Your task to perform on an android device: turn notification dots on Image 0: 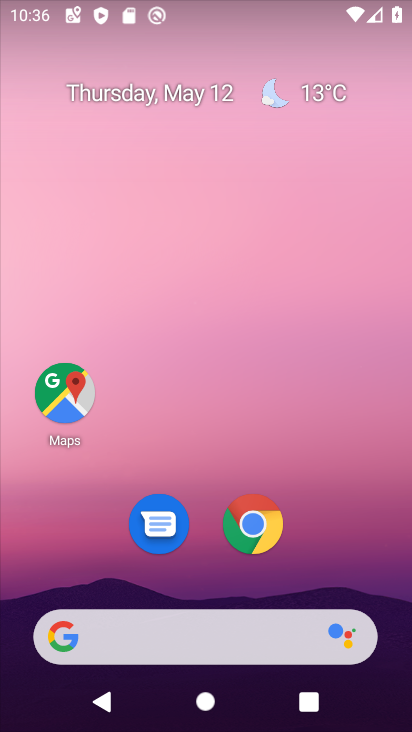
Step 0: drag from (294, 476) to (285, 40)
Your task to perform on an android device: turn notification dots on Image 1: 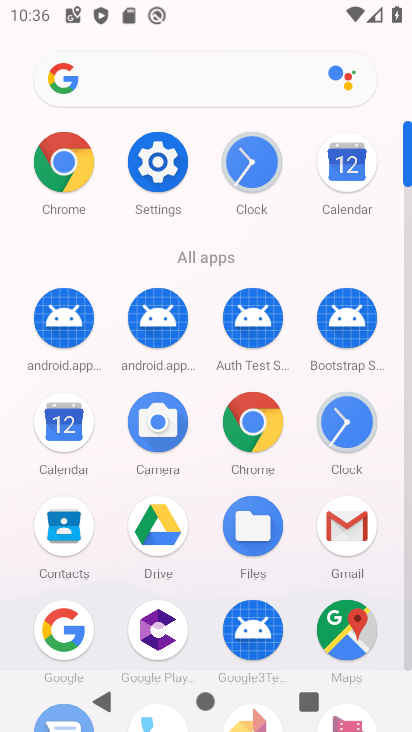
Step 1: click (173, 146)
Your task to perform on an android device: turn notification dots on Image 2: 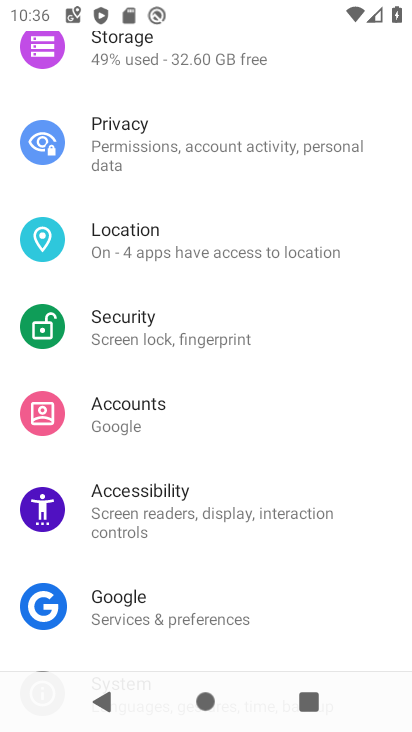
Step 2: drag from (236, 208) to (233, 584)
Your task to perform on an android device: turn notification dots on Image 3: 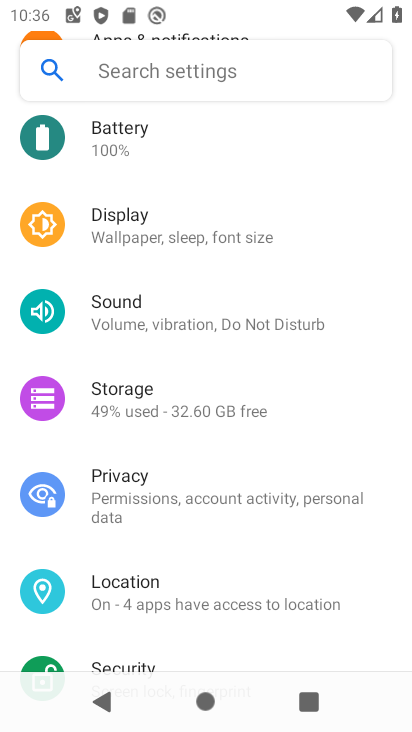
Step 3: drag from (219, 193) to (242, 634)
Your task to perform on an android device: turn notification dots on Image 4: 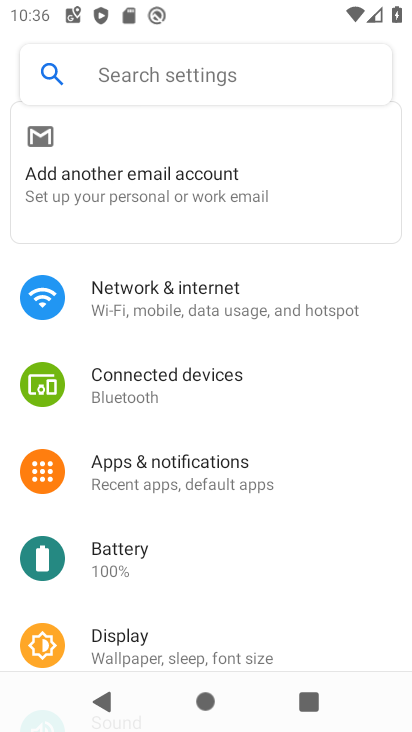
Step 4: click (225, 469)
Your task to perform on an android device: turn notification dots on Image 5: 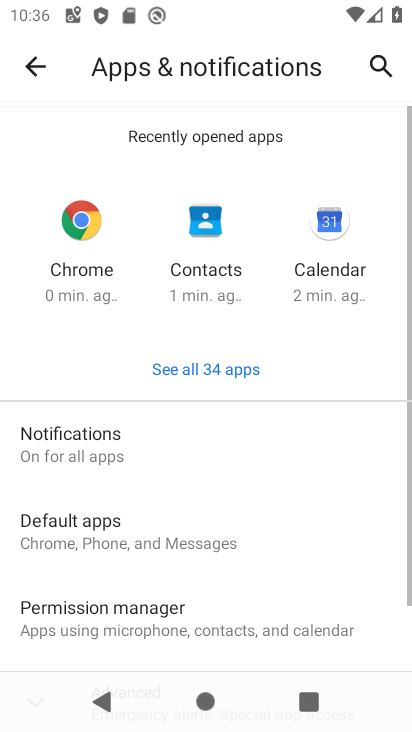
Step 5: click (224, 443)
Your task to perform on an android device: turn notification dots on Image 6: 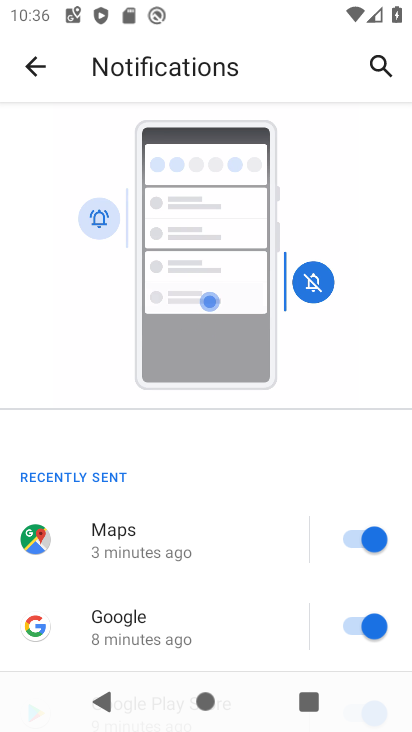
Step 6: drag from (218, 521) to (154, 35)
Your task to perform on an android device: turn notification dots on Image 7: 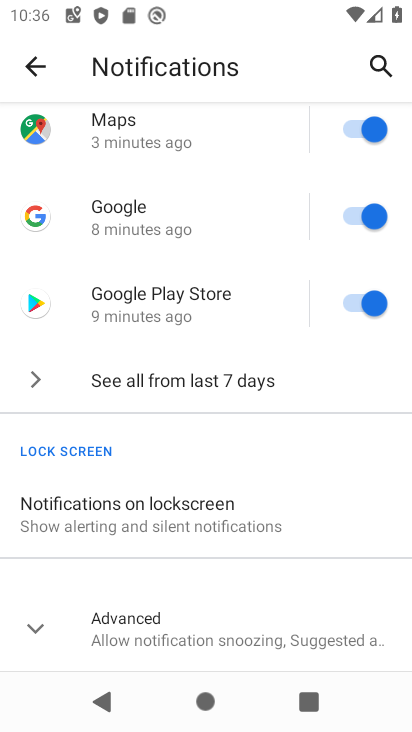
Step 7: click (33, 622)
Your task to perform on an android device: turn notification dots on Image 8: 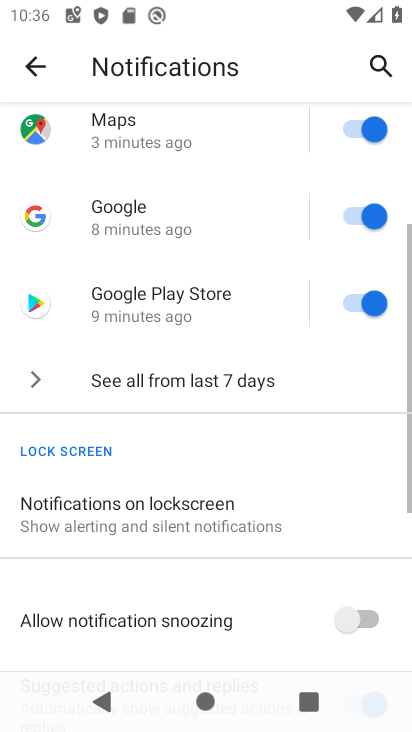
Step 8: task complete